Your task to perform on an android device: see creations saved in the google photos Image 0: 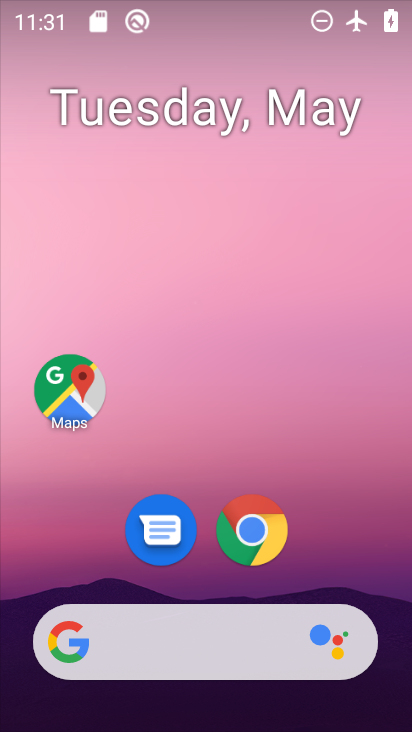
Step 0: drag from (333, 476) to (340, 91)
Your task to perform on an android device: see creations saved in the google photos Image 1: 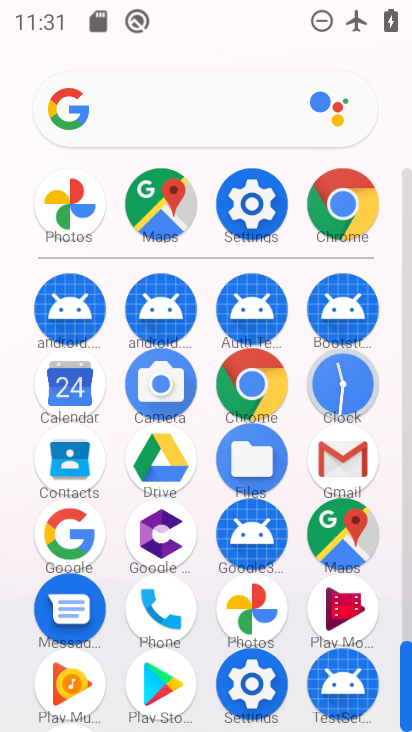
Step 1: click (256, 615)
Your task to perform on an android device: see creations saved in the google photos Image 2: 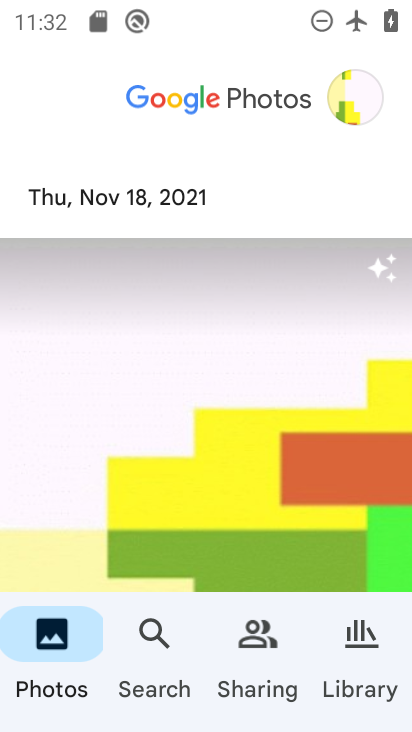
Step 2: click (370, 659)
Your task to perform on an android device: see creations saved in the google photos Image 3: 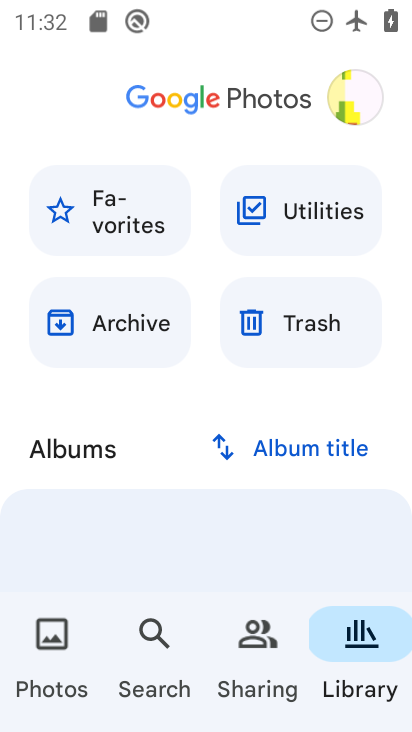
Step 3: task complete